Your task to perform on an android device: change keyboard looks Image 0: 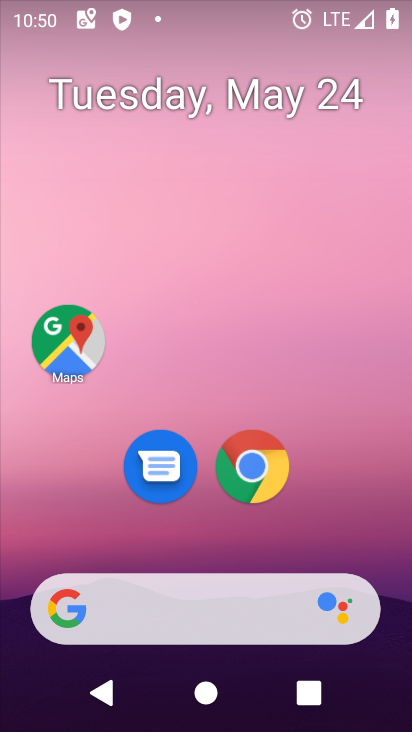
Step 0: drag from (383, 551) to (398, 92)
Your task to perform on an android device: change keyboard looks Image 1: 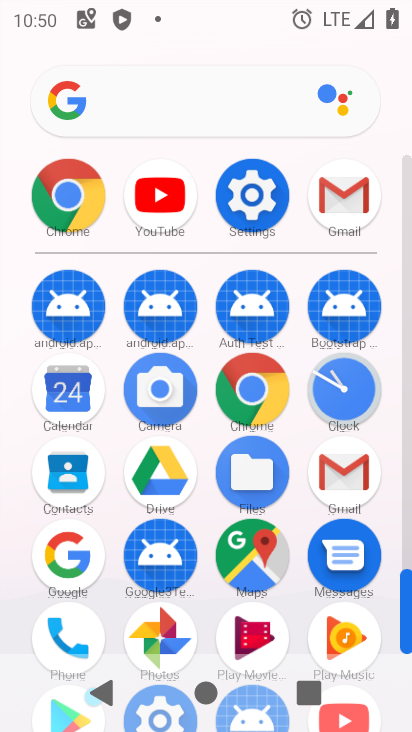
Step 1: click (276, 212)
Your task to perform on an android device: change keyboard looks Image 2: 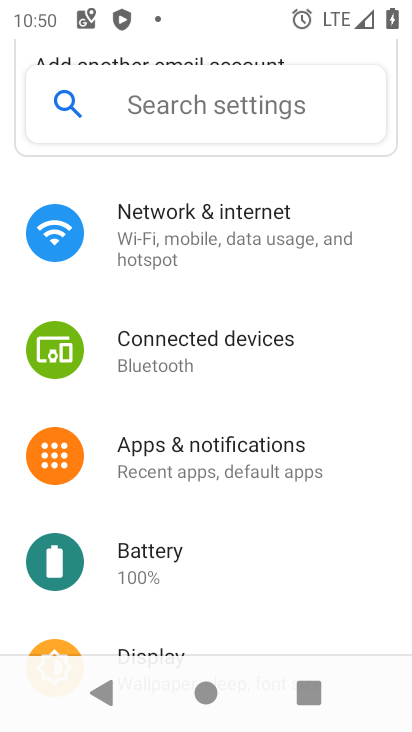
Step 2: drag from (365, 407) to (345, 296)
Your task to perform on an android device: change keyboard looks Image 3: 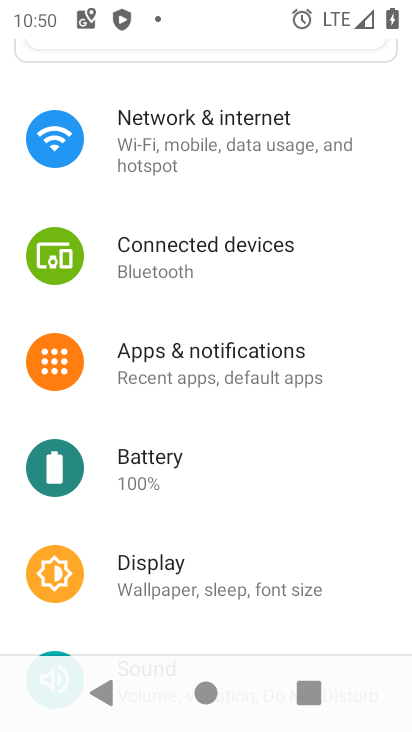
Step 3: drag from (350, 452) to (338, 350)
Your task to perform on an android device: change keyboard looks Image 4: 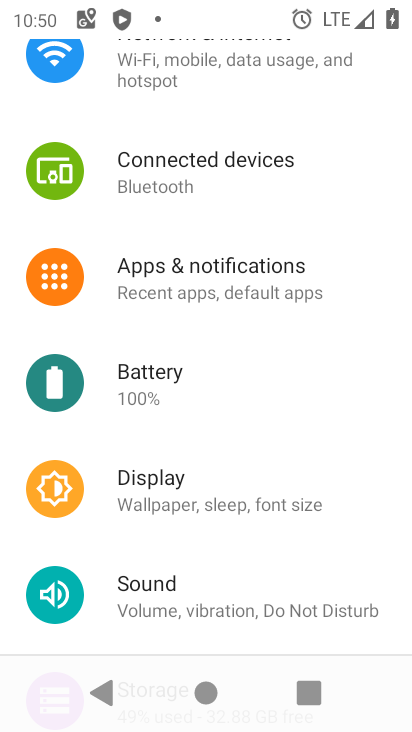
Step 4: drag from (362, 492) to (382, 374)
Your task to perform on an android device: change keyboard looks Image 5: 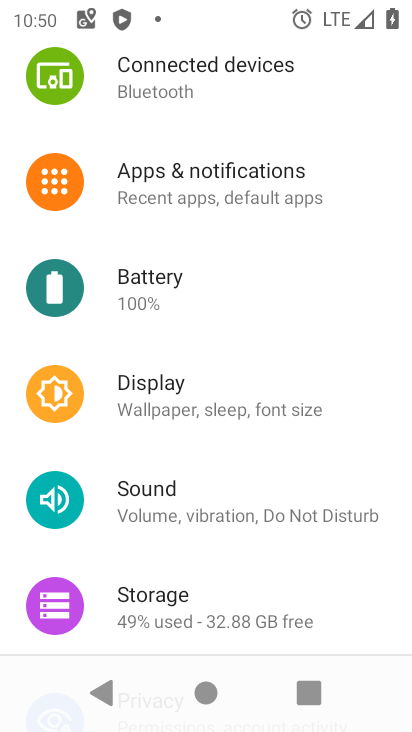
Step 5: drag from (358, 590) to (368, 469)
Your task to perform on an android device: change keyboard looks Image 6: 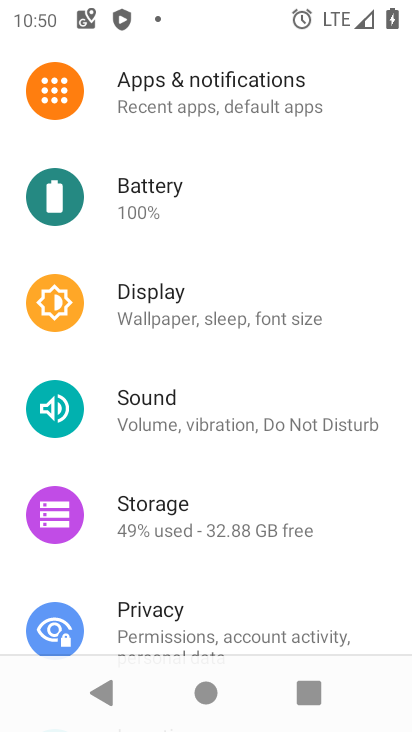
Step 6: drag from (360, 548) to (372, 455)
Your task to perform on an android device: change keyboard looks Image 7: 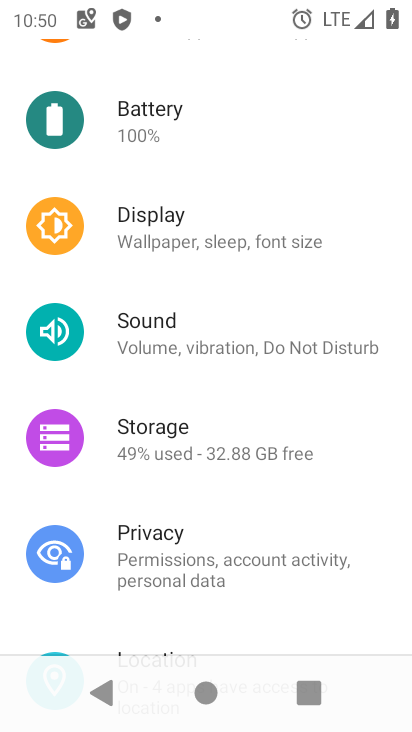
Step 7: drag from (360, 549) to (354, 473)
Your task to perform on an android device: change keyboard looks Image 8: 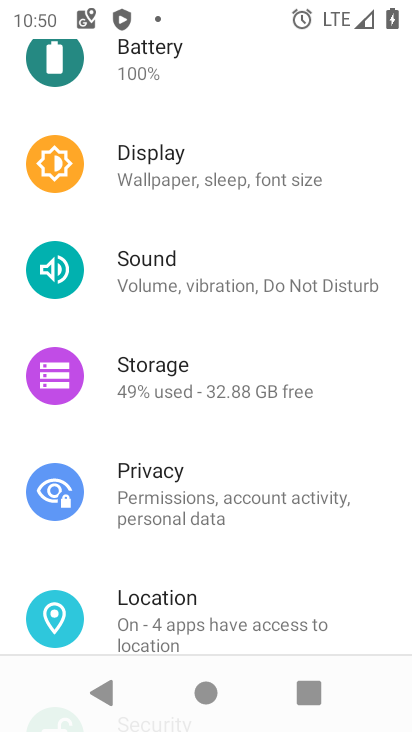
Step 8: drag from (346, 568) to (356, 482)
Your task to perform on an android device: change keyboard looks Image 9: 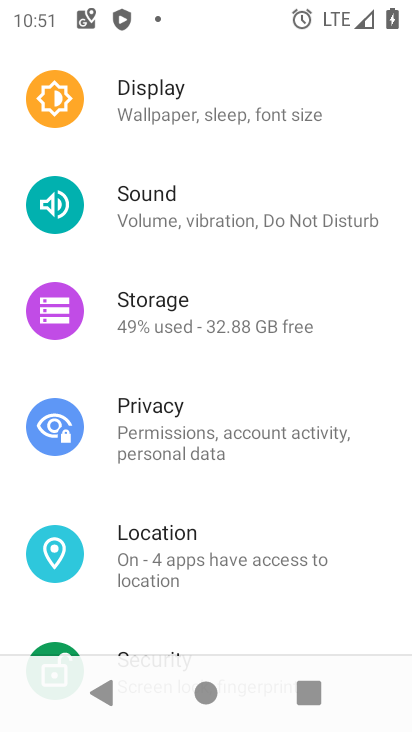
Step 9: drag from (364, 587) to (377, 512)
Your task to perform on an android device: change keyboard looks Image 10: 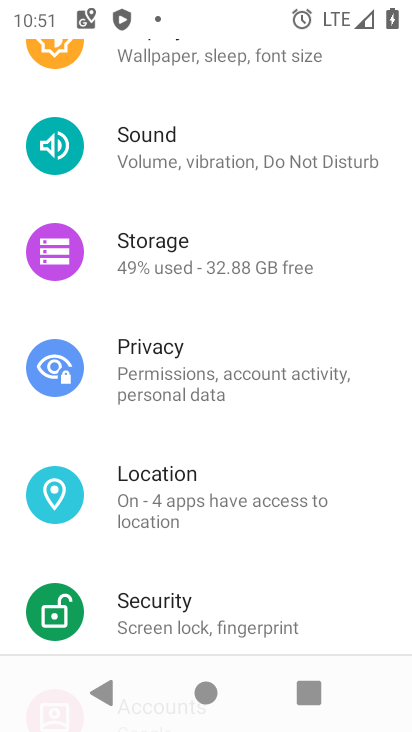
Step 10: drag from (357, 587) to (346, 499)
Your task to perform on an android device: change keyboard looks Image 11: 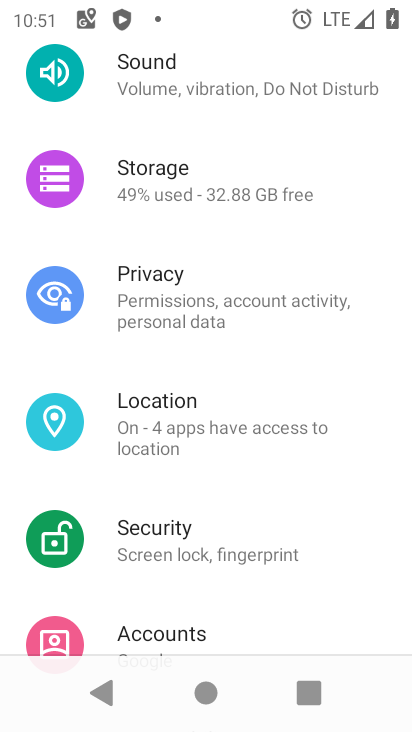
Step 11: drag from (350, 588) to (357, 484)
Your task to perform on an android device: change keyboard looks Image 12: 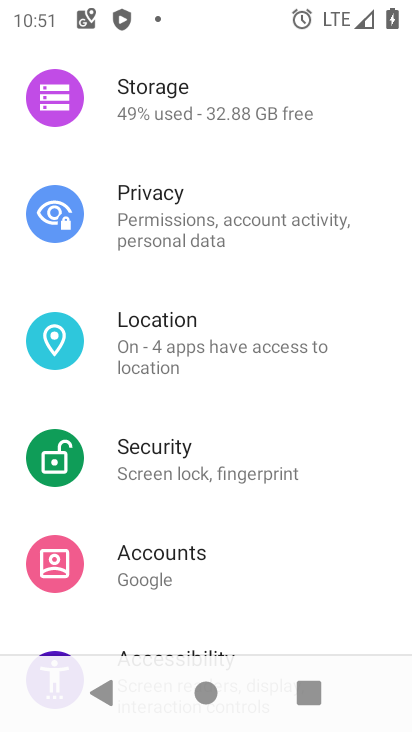
Step 12: drag from (347, 568) to (352, 506)
Your task to perform on an android device: change keyboard looks Image 13: 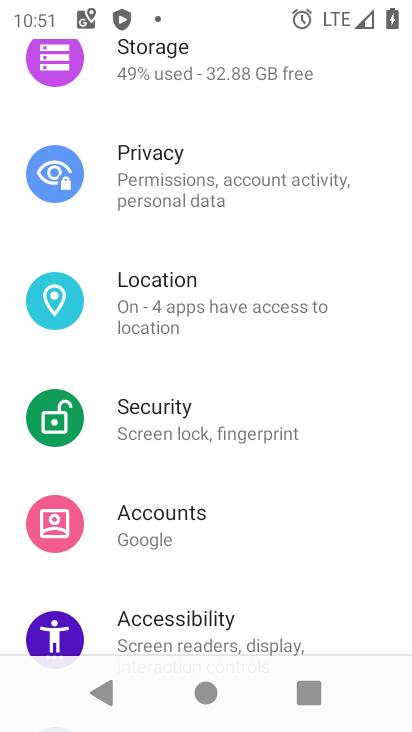
Step 13: drag from (357, 581) to (347, 430)
Your task to perform on an android device: change keyboard looks Image 14: 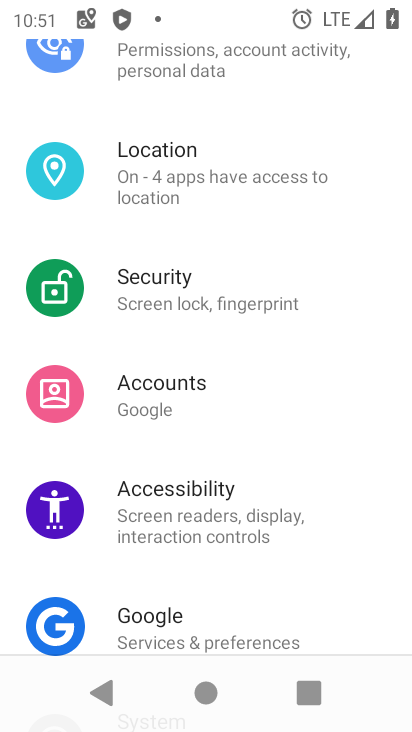
Step 14: drag from (343, 539) to (365, 433)
Your task to perform on an android device: change keyboard looks Image 15: 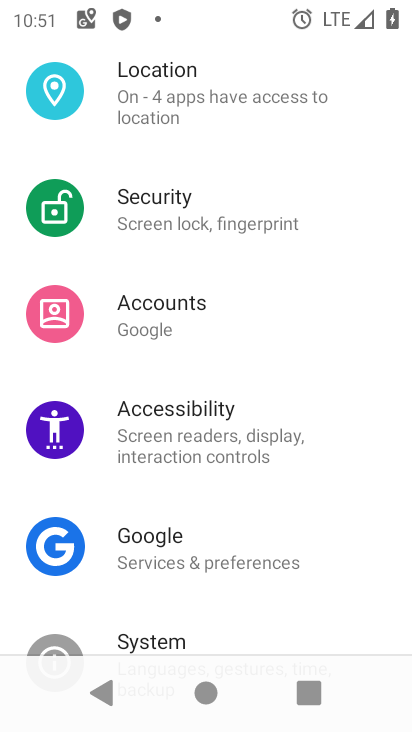
Step 15: click (364, 540)
Your task to perform on an android device: change keyboard looks Image 16: 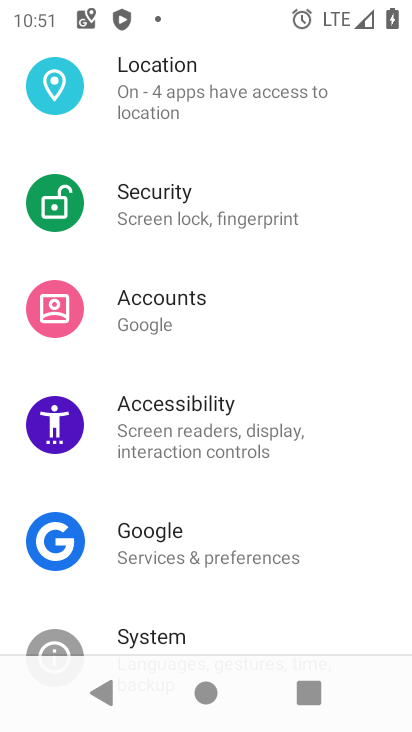
Step 16: drag from (350, 576) to (373, 455)
Your task to perform on an android device: change keyboard looks Image 17: 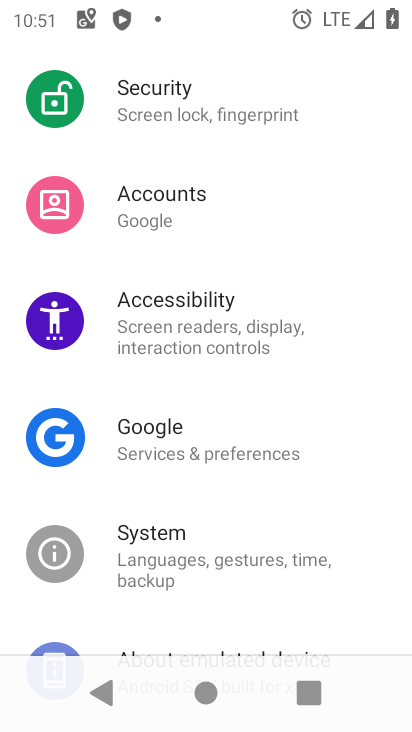
Step 17: click (261, 563)
Your task to perform on an android device: change keyboard looks Image 18: 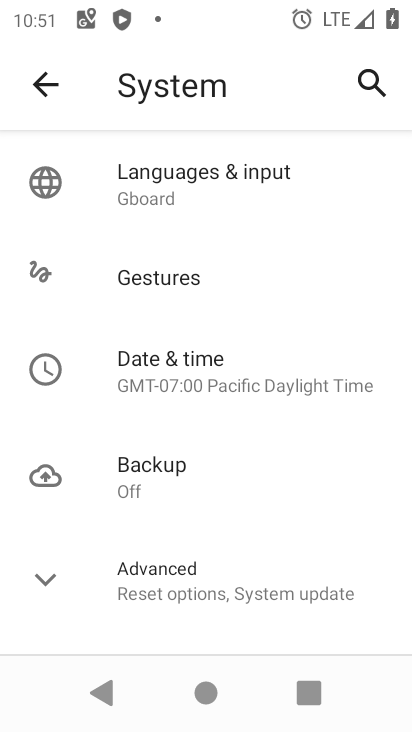
Step 18: click (219, 187)
Your task to perform on an android device: change keyboard looks Image 19: 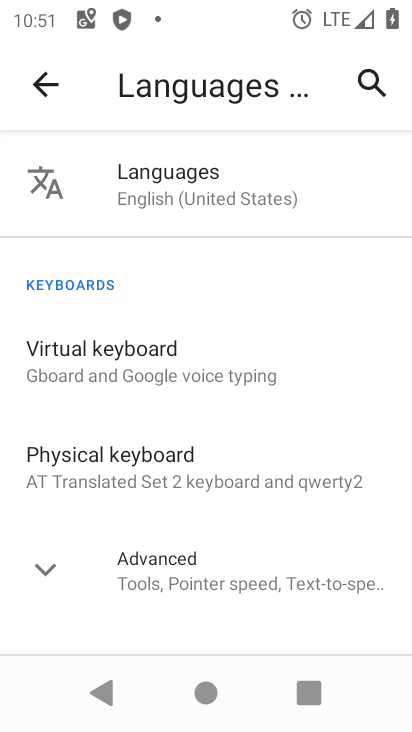
Step 19: click (219, 366)
Your task to perform on an android device: change keyboard looks Image 20: 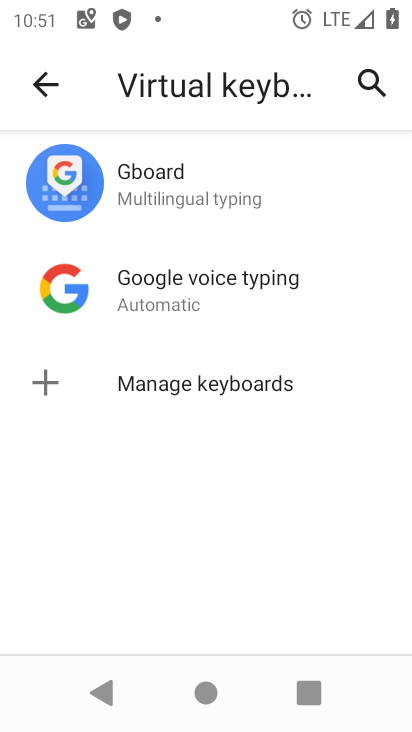
Step 20: click (200, 186)
Your task to perform on an android device: change keyboard looks Image 21: 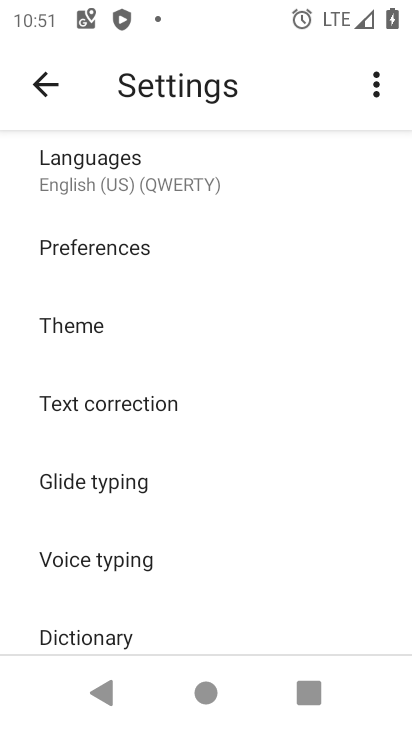
Step 21: click (108, 323)
Your task to perform on an android device: change keyboard looks Image 22: 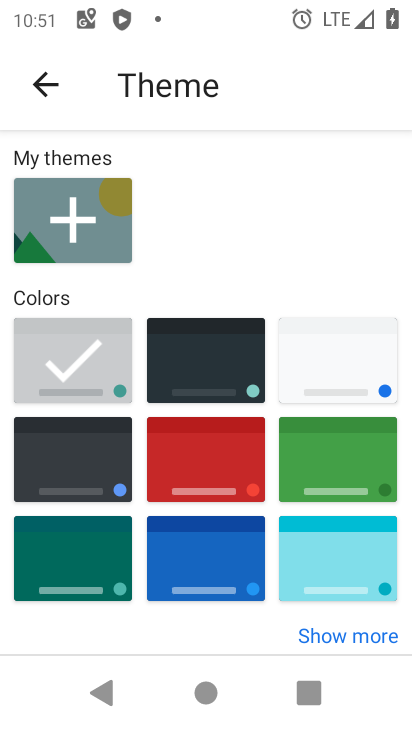
Step 22: click (195, 456)
Your task to perform on an android device: change keyboard looks Image 23: 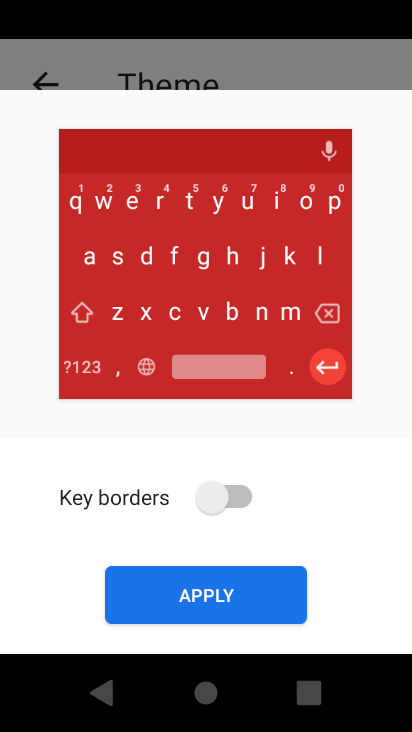
Step 23: click (226, 588)
Your task to perform on an android device: change keyboard looks Image 24: 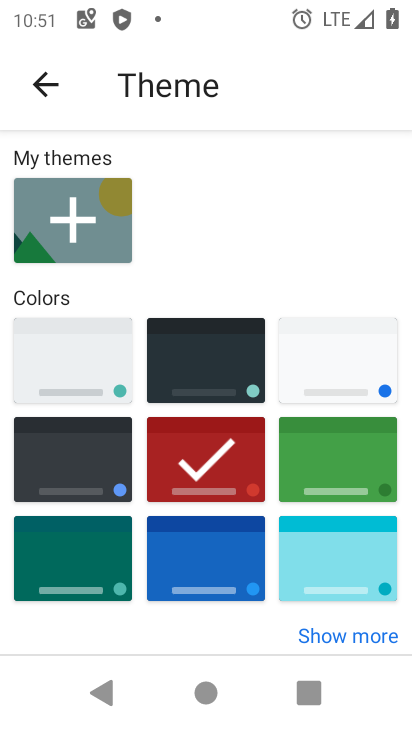
Step 24: task complete